Your task to perform on an android device: Check the news Image 0: 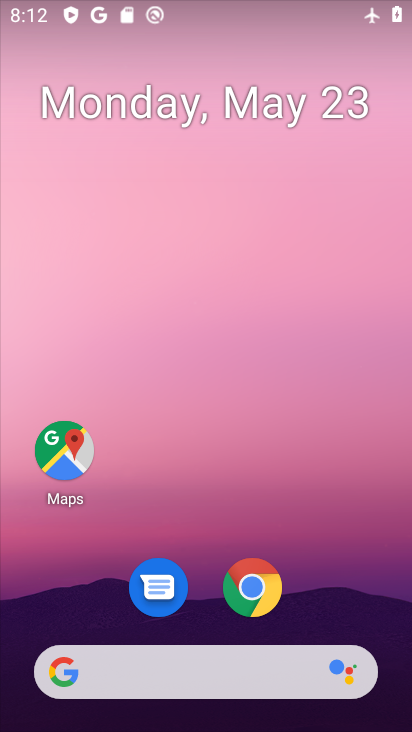
Step 0: click (195, 658)
Your task to perform on an android device: Check the news Image 1: 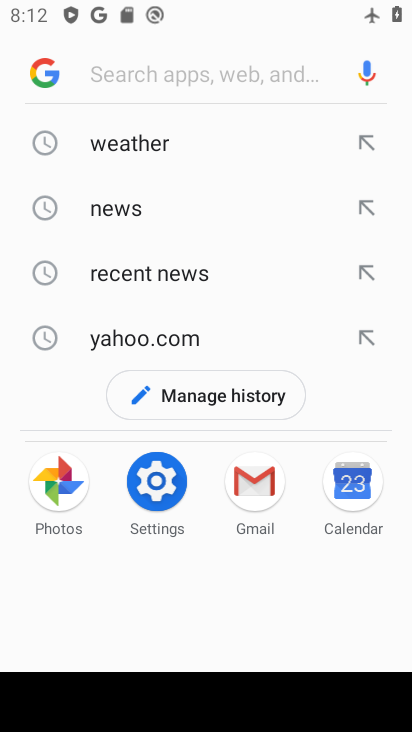
Step 1: click (117, 210)
Your task to perform on an android device: Check the news Image 2: 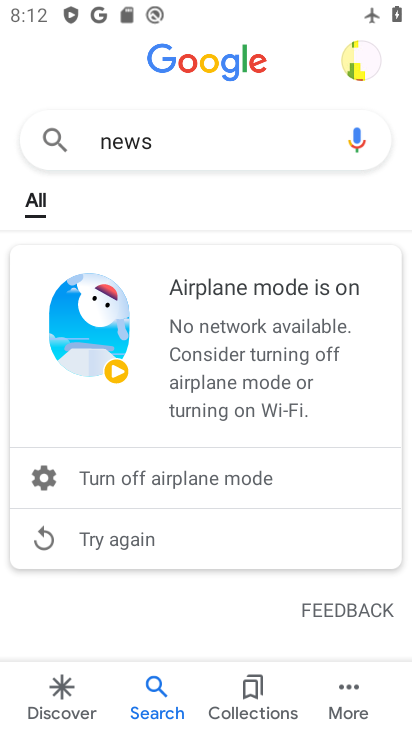
Step 2: drag from (323, 9) to (303, 576)
Your task to perform on an android device: Check the news Image 3: 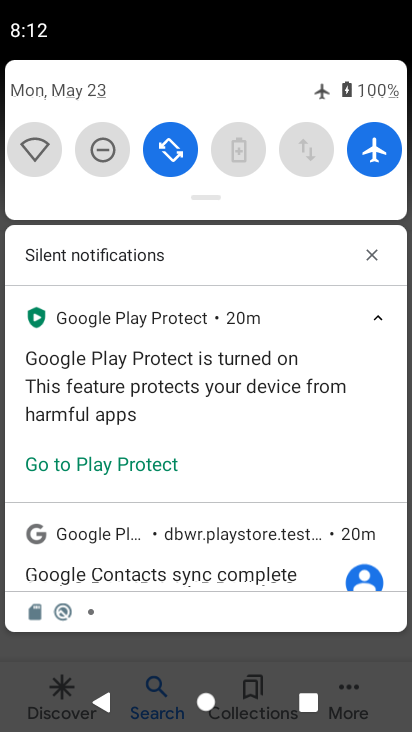
Step 3: click (363, 140)
Your task to perform on an android device: Check the news Image 4: 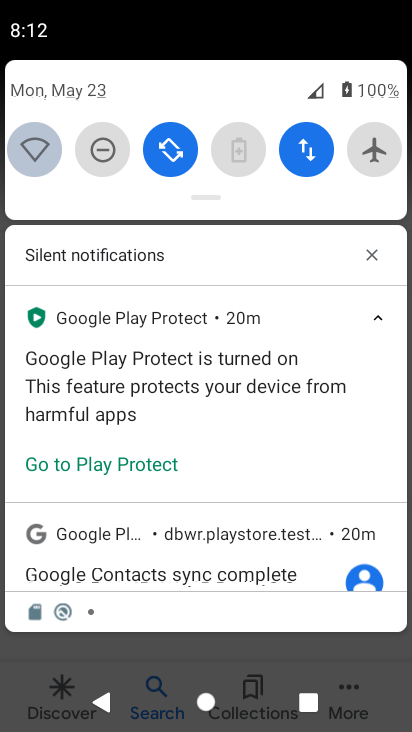
Step 4: click (245, 666)
Your task to perform on an android device: Check the news Image 5: 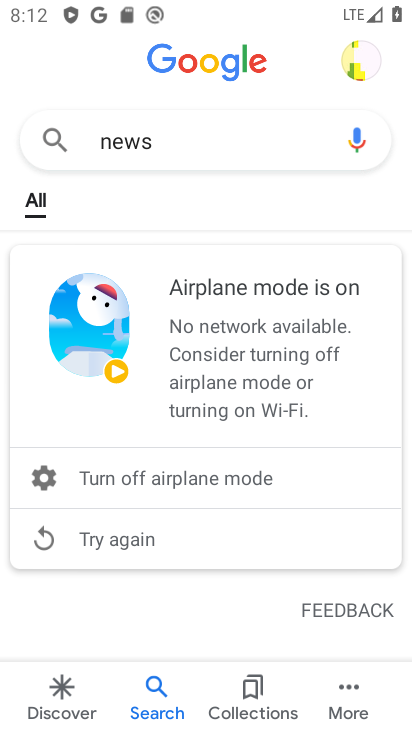
Step 5: click (63, 549)
Your task to perform on an android device: Check the news Image 6: 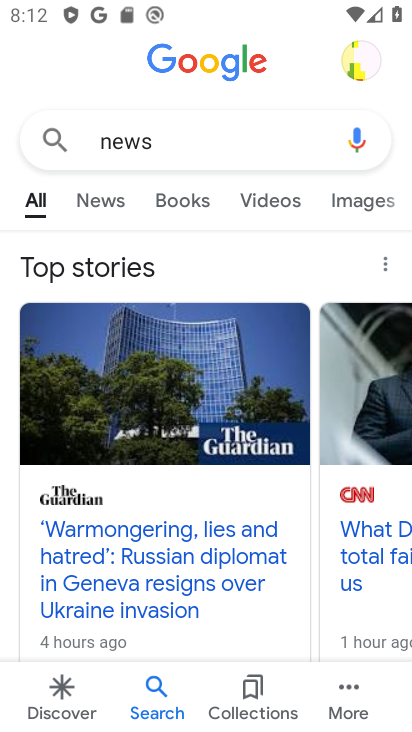
Step 6: task complete